Your task to perform on an android device: visit the assistant section in the google photos Image 0: 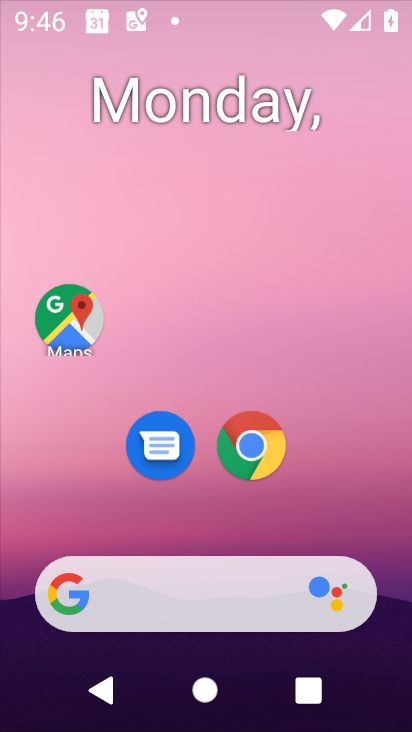
Step 0: drag from (124, 580) to (71, 30)
Your task to perform on an android device: visit the assistant section in the google photos Image 1: 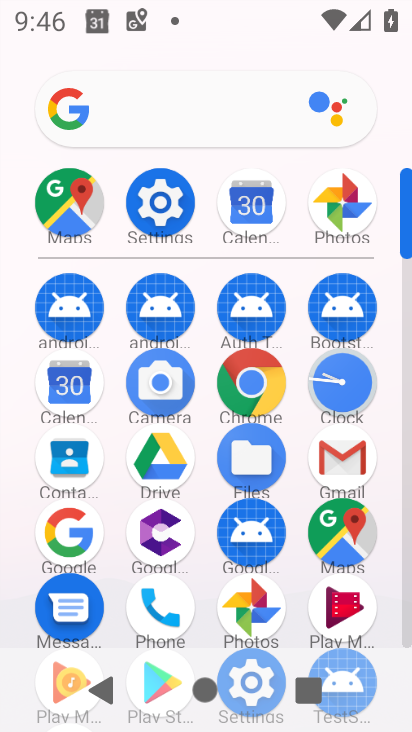
Step 1: click (349, 215)
Your task to perform on an android device: visit the assistant section in the google photos Image 2: 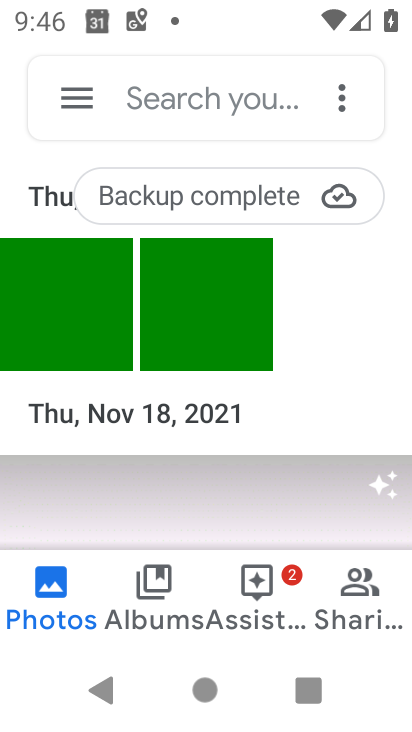
Step 2: click (254, 560)
Your task to perform on an android device: visit the assistant section in the google photos Image 3: 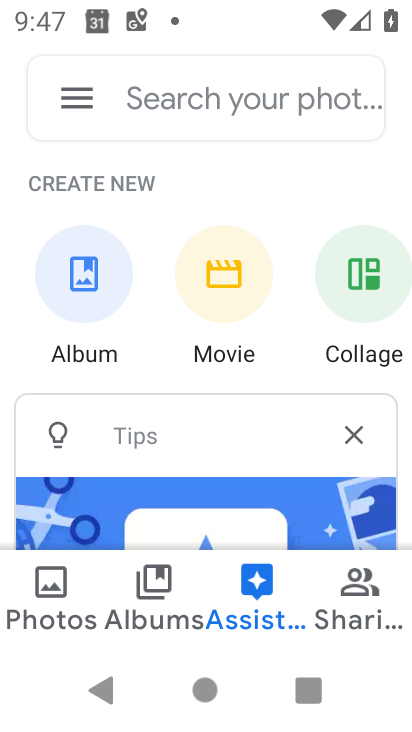
Step 3: task complete